Your task to perform on an android device: Go to battery settings Image 0: 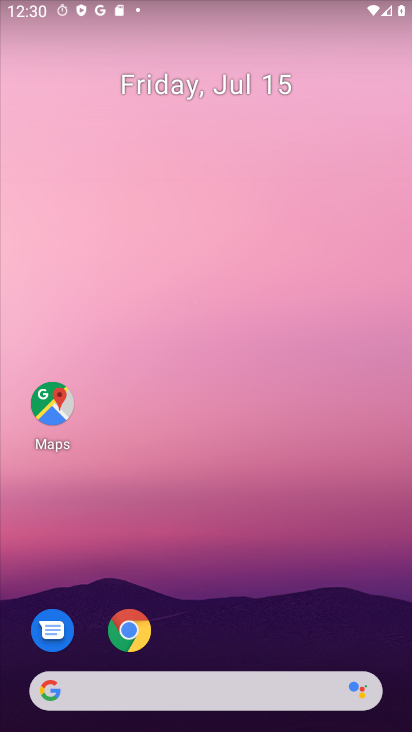
Step 0: drag from (193, 633) to (208, 143)
Your task to perform on an android device: Go to battery settings Image 1: 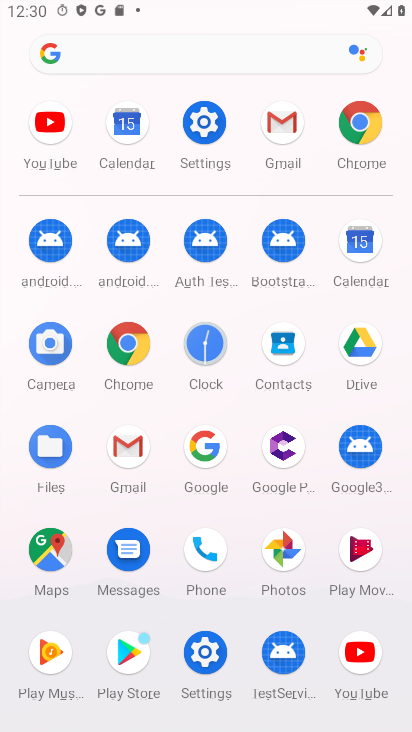
Step 1: click (201, 116)
Your task to perform on an android device: Go to battery settings Image 2: 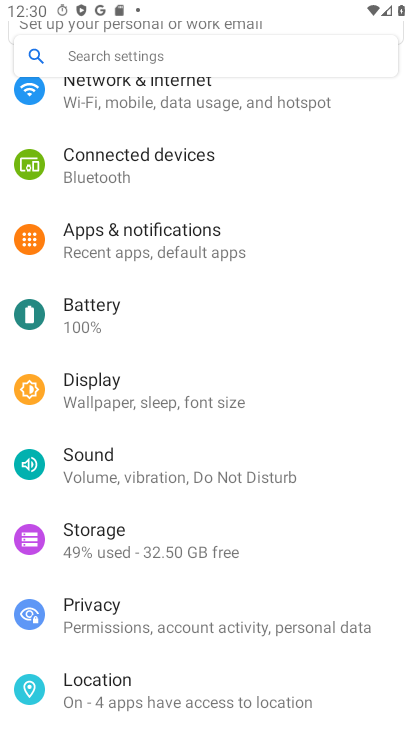
Step 2: click (90, 312)
Your task to perform on an android device: Go to battery settings Image 3: 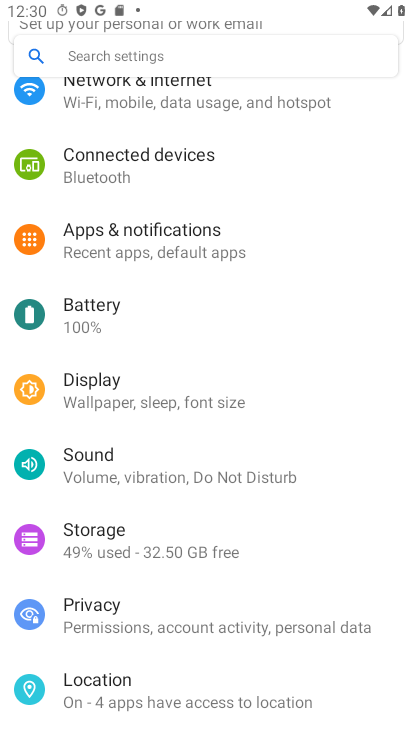
Step 3: click (90, 312)
Your task to perform on an android device: Go to battery settings Image 4: 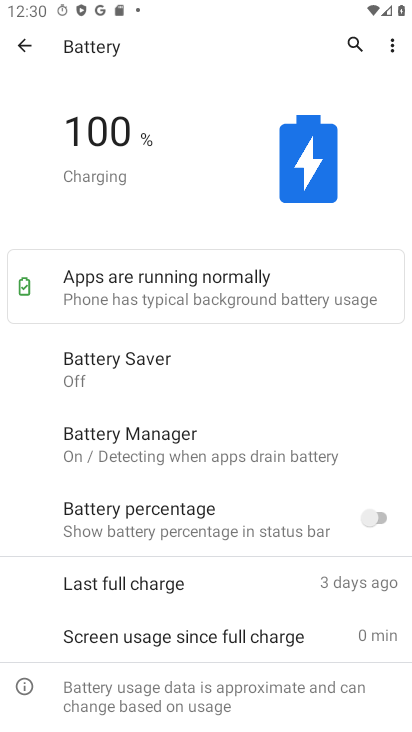
Step 4: task complete